Your task to perform on an android device: Turn off the flashlight Image 0: 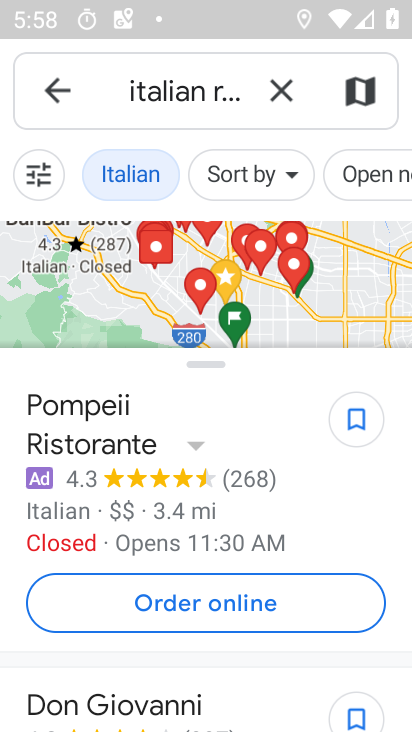
Step 0: press home button
Your task to perform on an android device: Turn off the flashlight Image 1: 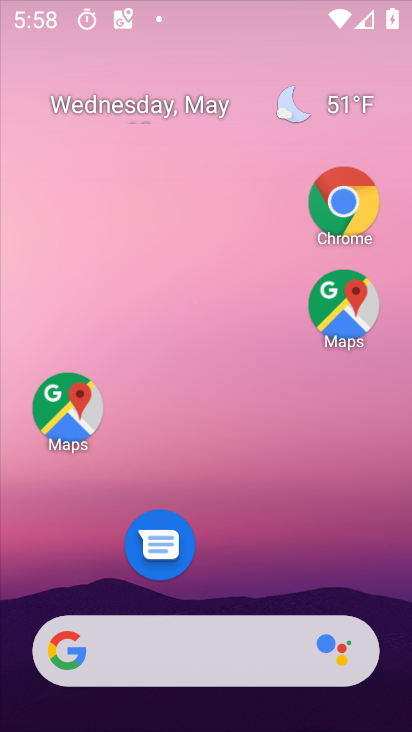
Step 1: drag from (224, 591) to (269, 37)
Your task to perform on an android device: Turn off the flashlight Image 2: 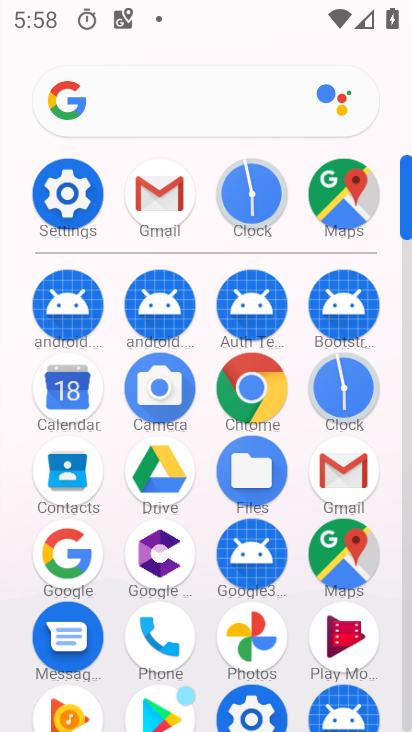
Step 2: click (60, 194)
Your task to perform on an android device: Turn off the flashlight Image 3: 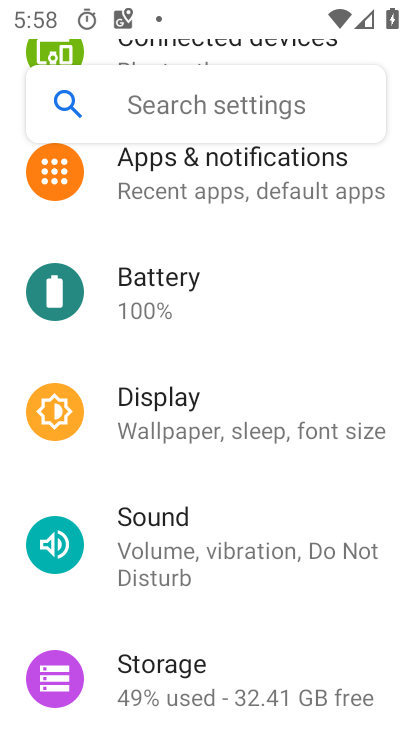
Step 3: task complete